Your task to perform on an android device: create a new album in the google photos Image 0: 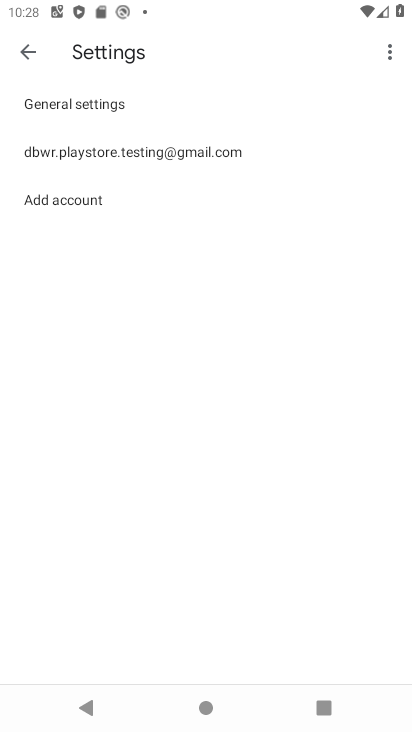
Step 0: press back button
Your task to perform on an android device: create a new album in the google photos Image 1: 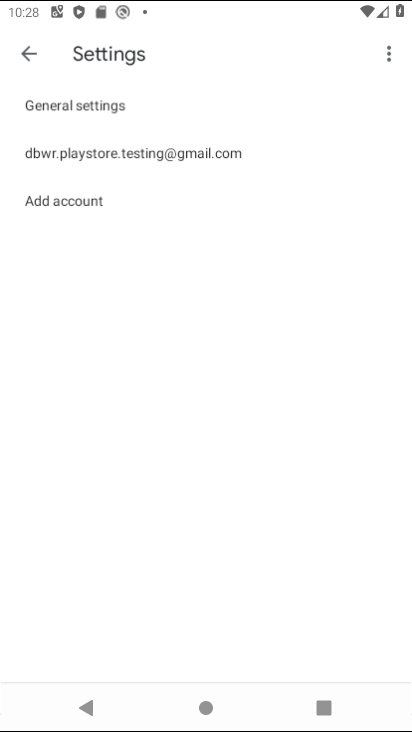
Step 1: press back button
Your task to perform on an android device: create a new album in the google photos Image 2: 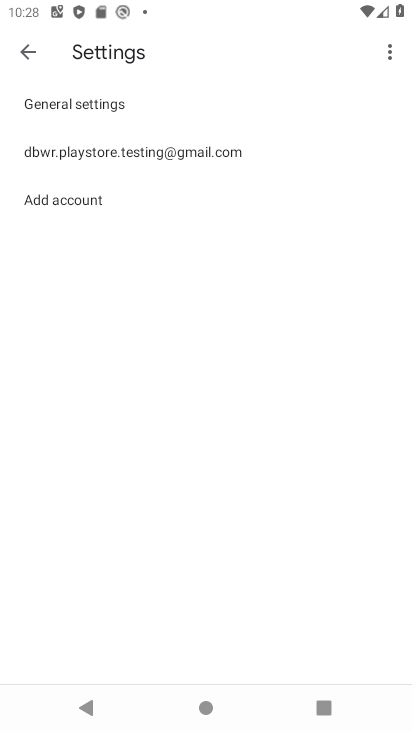
Step 2: press back button
Your task to perform on an android device: create a new album in the google photos Image 3: 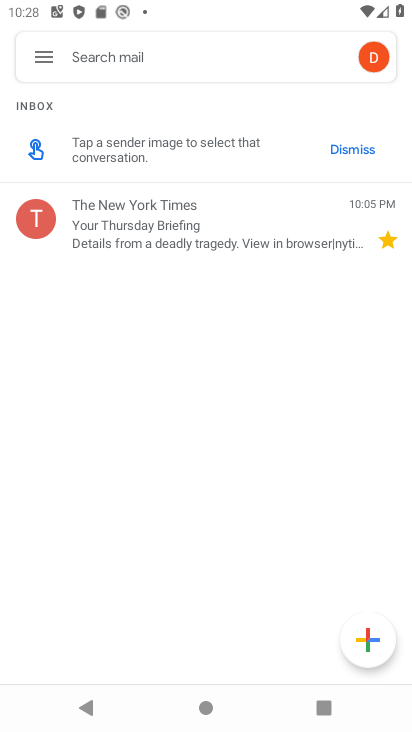
Step 3: press back button
Your task to perform on an android device: create a new album in the google photos Image 4: 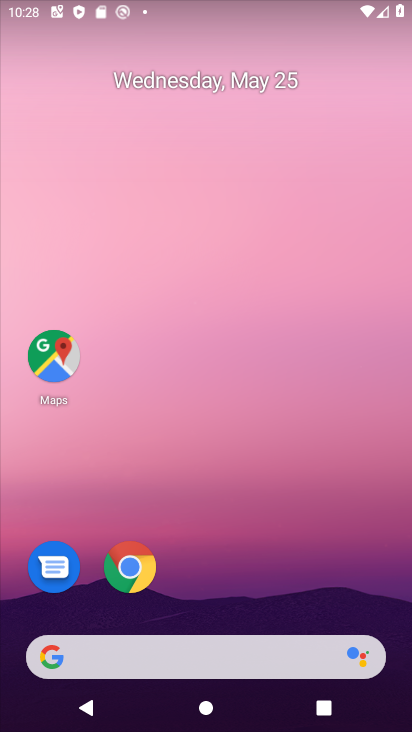
Step 4: drag from (245, 558) to (222, 76)
Your task to perform on an android device: create a new album in the google photos Image 5: 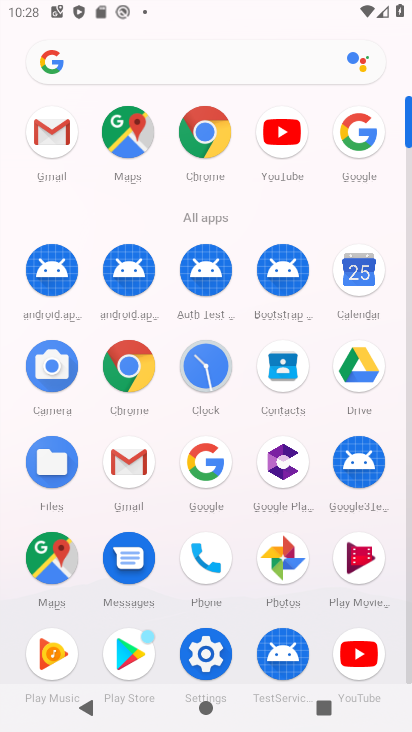
Step 5: click (295, 561)
Your task to perform on an android device: create a new album in the google photos Image 6: 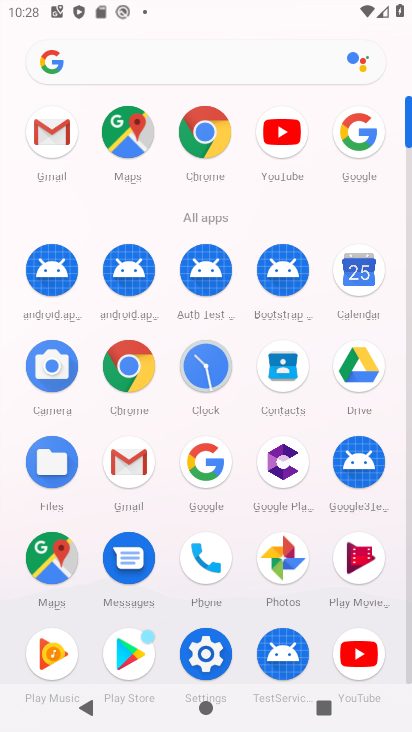
Step 6: click (295, 561)
Your task to perform on an android device: create a new album in the google photos Image 7: 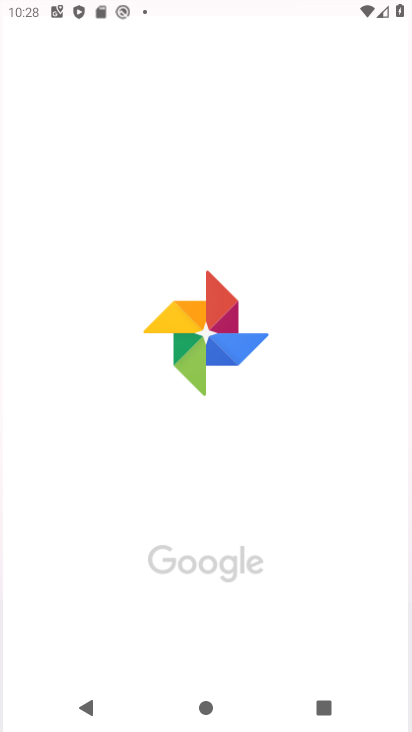
Step 7: click (294, 560)
Your task to perform on an android device: create a new album in the google photos Image 8: 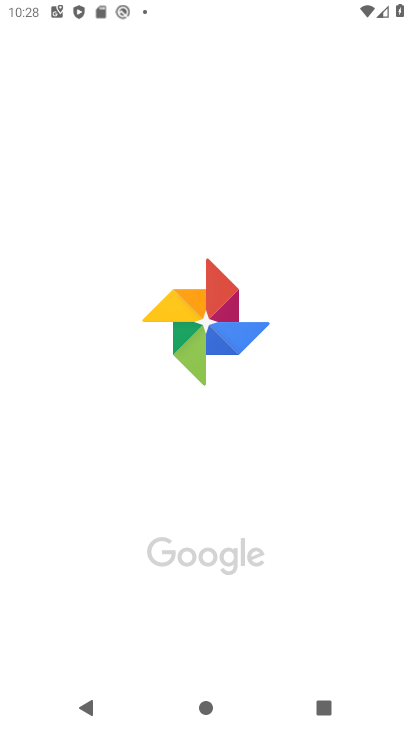
Step 8: click (294, 560)
Your task to perform on an android device: create a new album in the google photos Image 9: 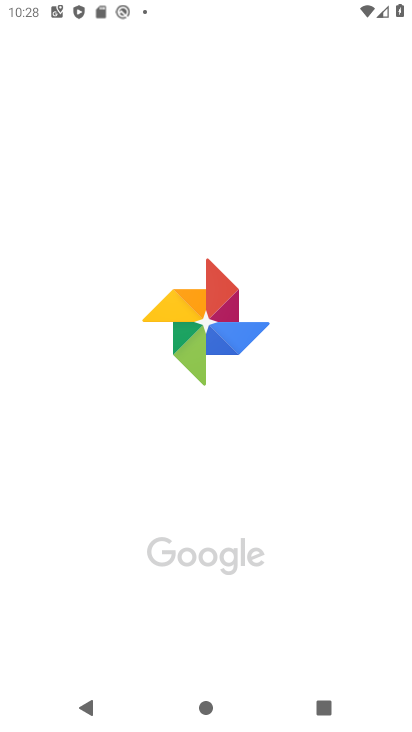
Step 9: click (294, 560)
Your task to perform on an android device: create a new album in the google photos Image 10: 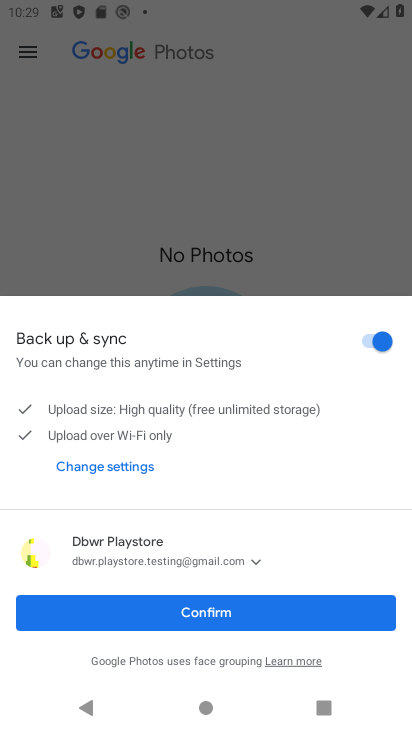
Step 10: click (213, 606)
Your task to perform on an android device: create a new album in the google photos Image 11: 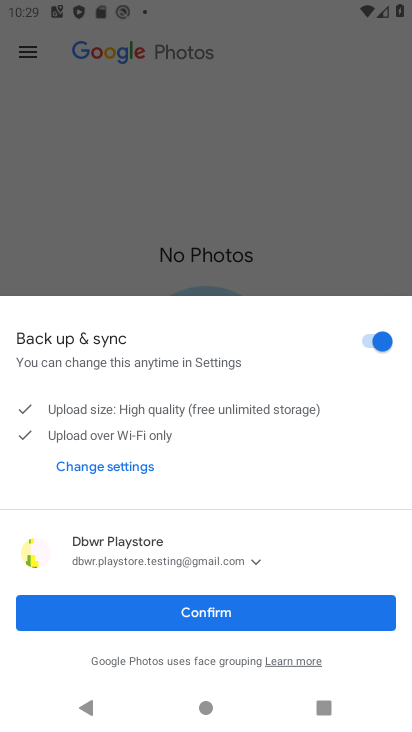
Step 11: click (215, 605)
Your task to perform on an android device: create a new album in the google photos Image 12: 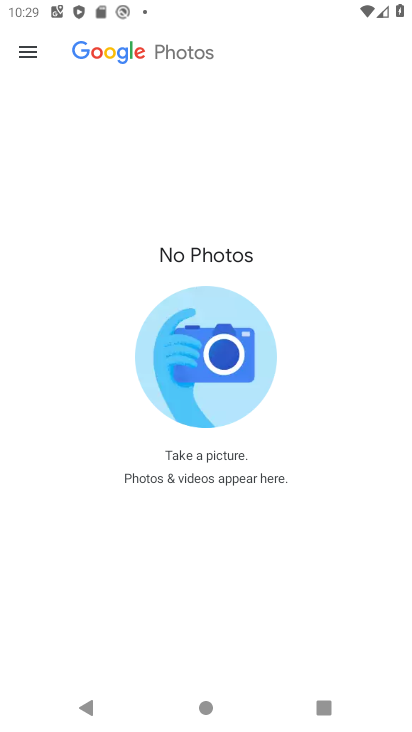
Step 12: click (216, 605)
Your task to perform on an android device: create a new album in the google photos Image 13: 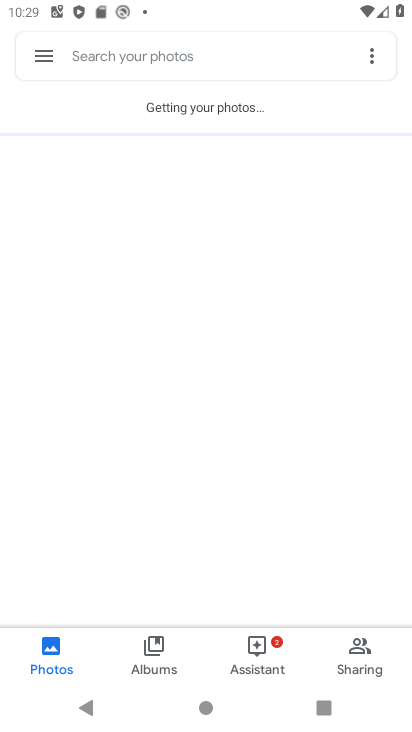
Step 13: drag from (371, 61) to (211, 350)
Your task to perform on an android device: create a new album in the google photos Image 14: 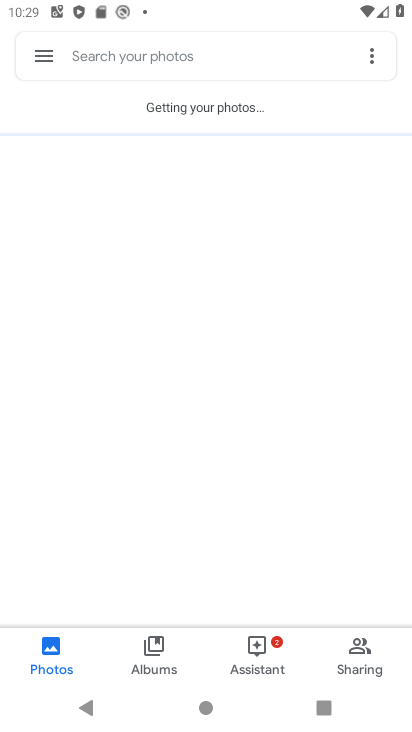
Step 14: click (149, 648)
Your task to perform on an android device: create a new album in the google photos Image 15: 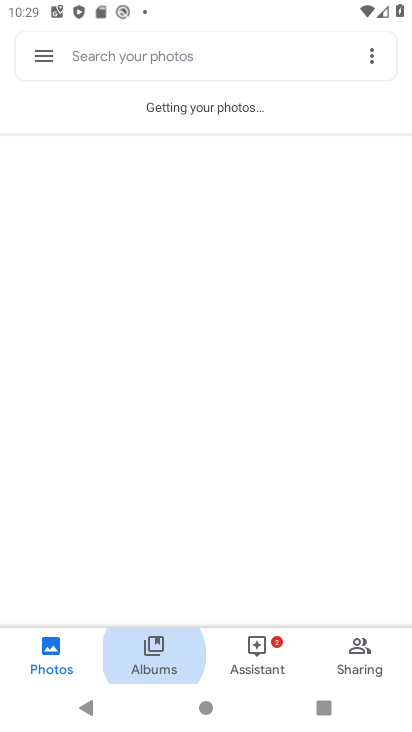
Step 15: click (149, 648)
Your task to perform on an android device: create a new album in the google photos Image 16: 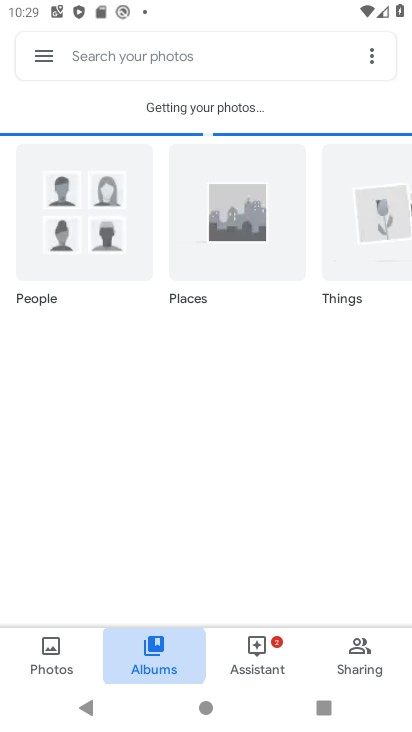
Step 16: click (144, 645)
Your task to perform on an android device: create a new album in the google photos Image 17: 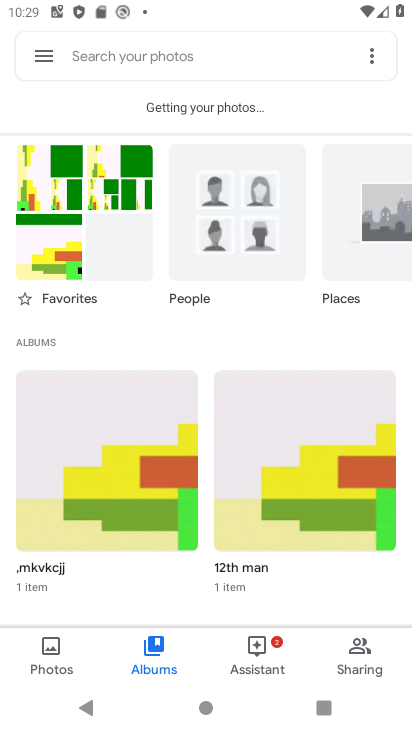
Step 17: drag from (180, 481) to (196, 302)
Your task to perform on an android device: create a new album in the google photos Image 18: 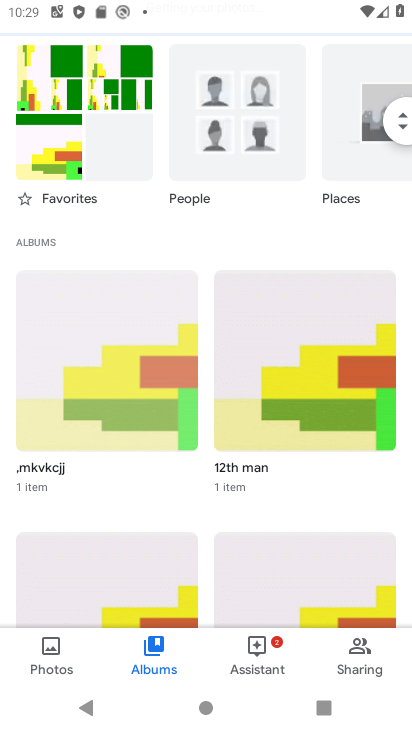
Step 18: drag from (197, 503) to (256, 293)
Your task to perform on an android device: create a new album in the google photos Image 19: 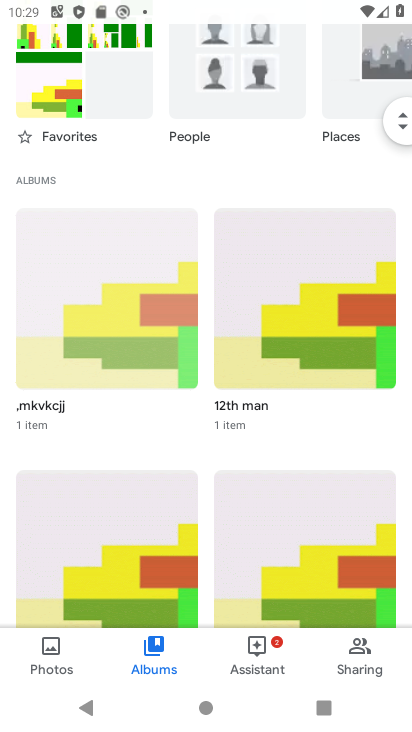
Step 19: drag from (263, 500) to (303, 340)
Your task to perform on an android device: create a new album in the google photos Image 20: 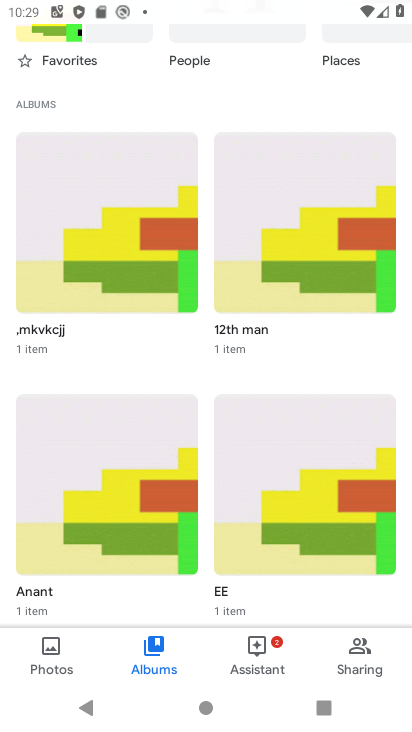
Step 20: drag from (127, 301) to (184, 502)
Your task to perform on an android device: create a new album in the google photos Image 21: 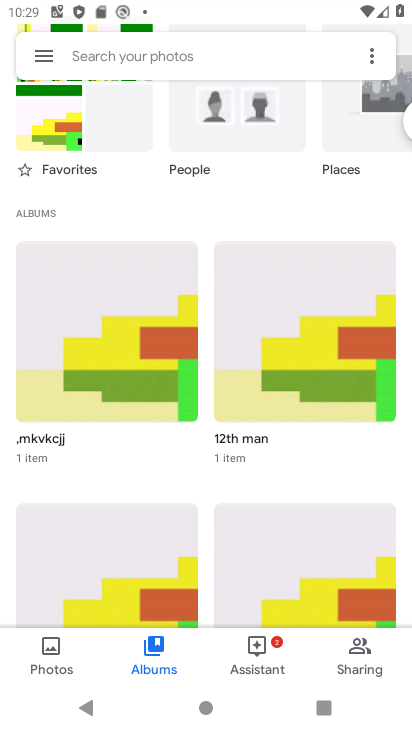
Step 21: drag from (185, 272) to (188, 364)
Your task to perform on an android device: create a new album in the google photos Image 22: 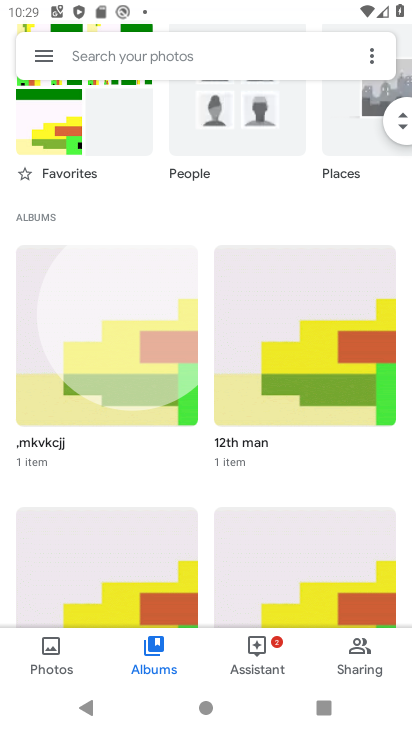
Step 22: drag from (164, 220) to (180, 595)
Your task to perform on an android device: create a new album in the google photos Image 23: 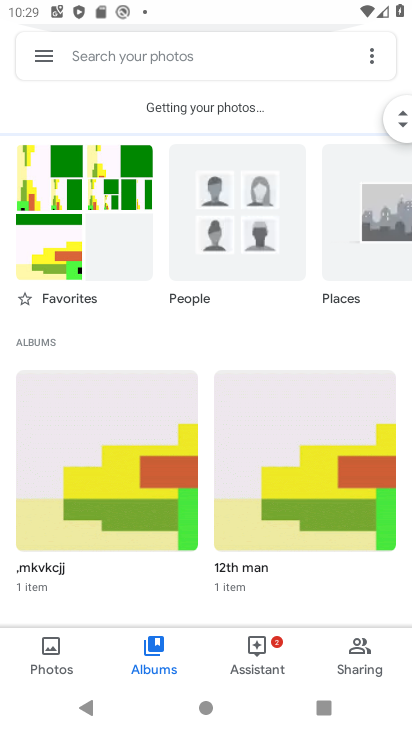
Step 23: drag from (149, 235) to (153, 434)
Your task to perform on an android device: create a new album in the google photos Image 24: 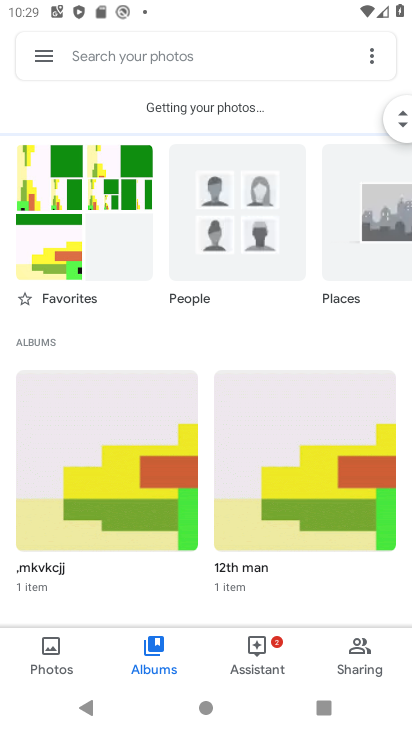
Step 24: drag from (151, 353) to (175, 529)
Your task to perform on an android device: create a new album in the google photos Image 25: 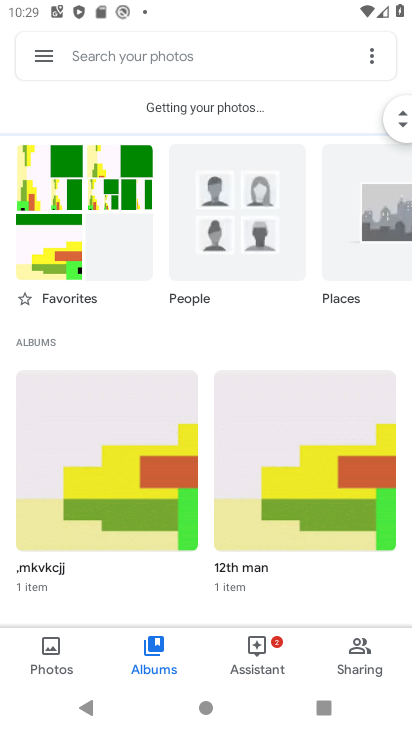
Step 25: click (370, 51)
Your task to perform on an android device: create a new album in the google photos Image 26: 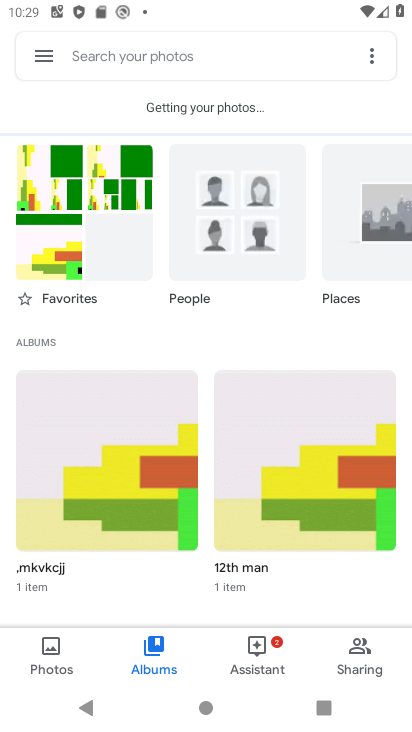
Step 26: drag from (369, 58) to (223, 410)
Your task to perform on an android device: create a new album in the google photos Image 27: 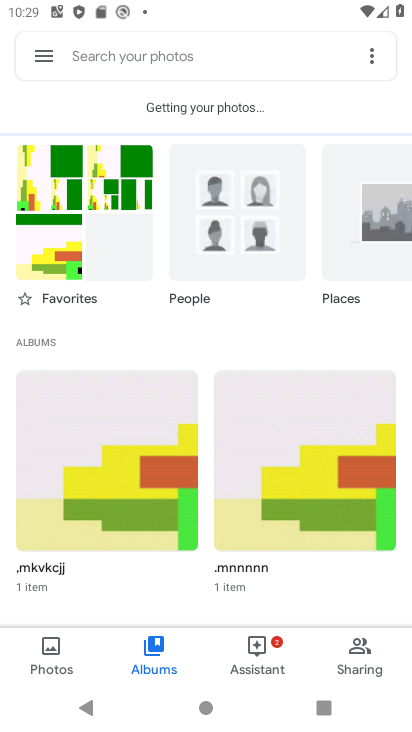
Step 27: click (376, 51)
Your task to perform on an android device: create a new album in the google photos Image 28: 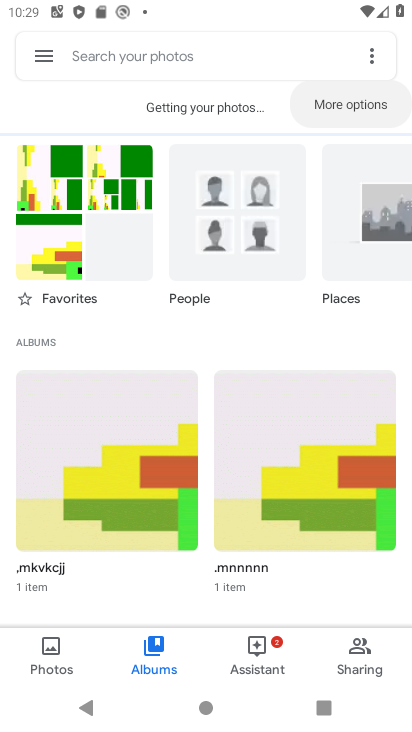
Step 28: click (374, 57)
Your task to perform on an android device: create a new album in the google photos Image 29: 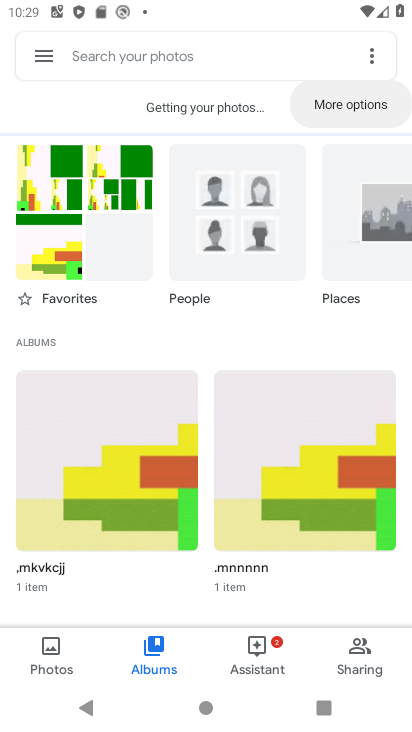
Step 29: click (374, 57)
Your task to perform on an android device: create a new album in the google photos Image 30: 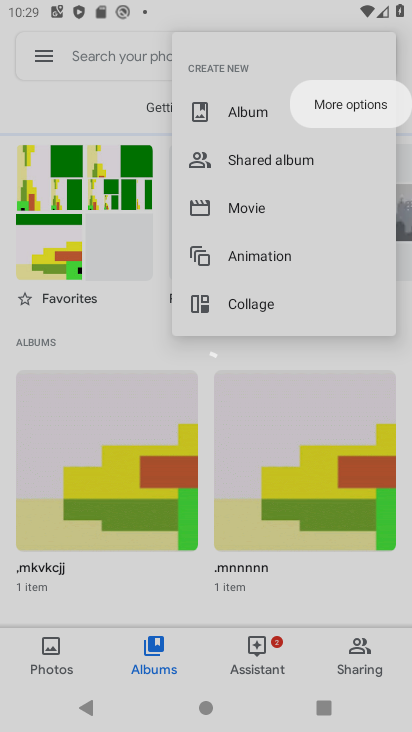
Step 30: click (374, 57)
Your task to perform on an android device: create a new album in the google photos Image 31: 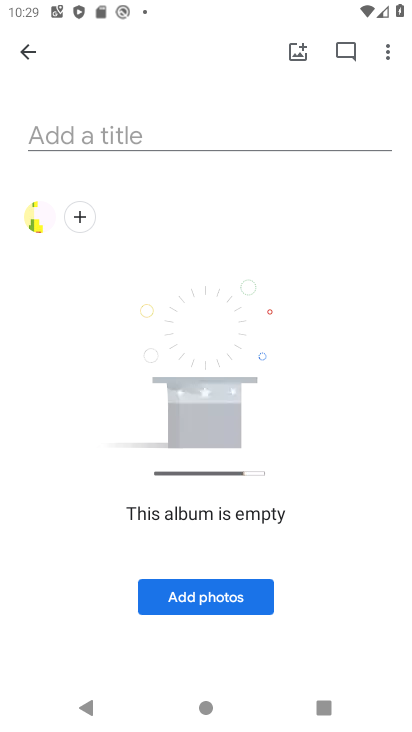
Step 31: click (54, 138)
Your task to perform on an android device: create a new album in the google photos Image 32: 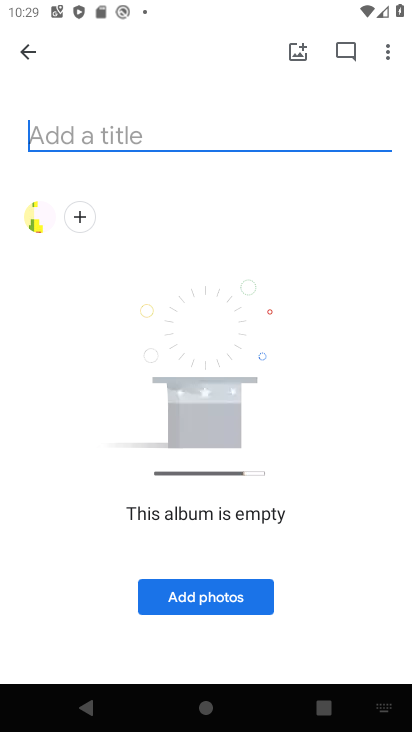
Step 32: click (55, 137)
Your task to perform on an android device: create a new album in the google photos Image 33: 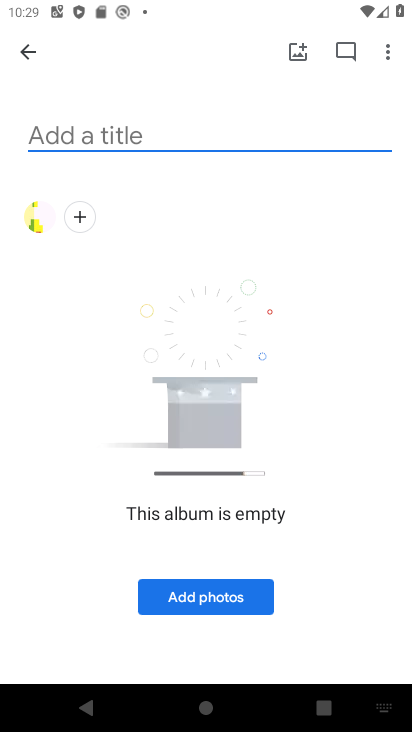
Step 33: click (57, 137)
Your task to perform on an android device: create a new album in the google photos Image 34: 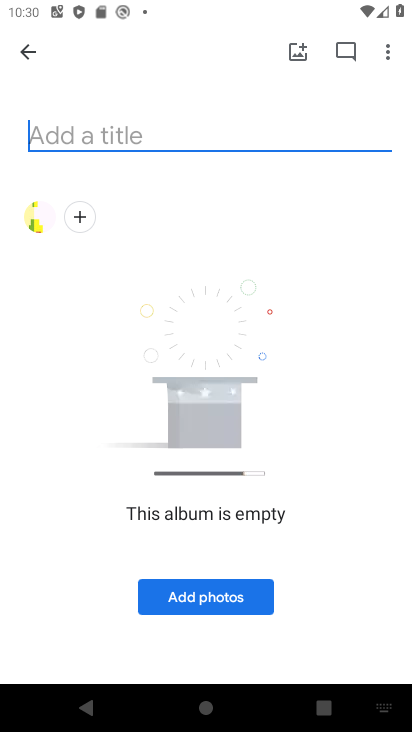
Step 34: type "ayodhya"
Your task to perform on an android device: create a new album in the google photos Image 35: 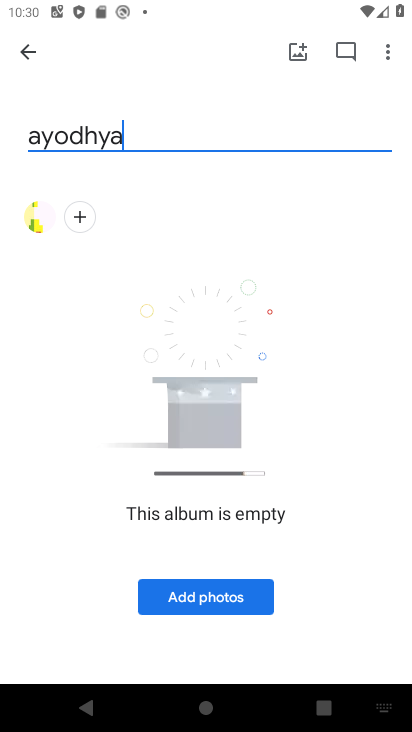
Step 35: click (204, 597)
Your task to perform on an android device: create a new album in the google photos Image 36: 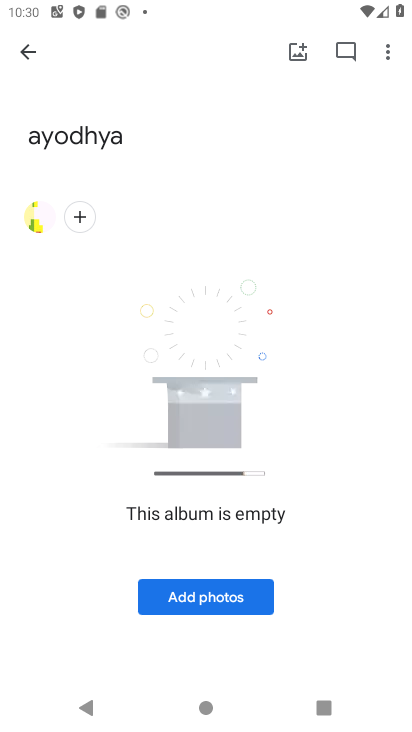
Step 36: click (204, 597)
Your task to perform on an android device: create a new album in the google photos Image 37: 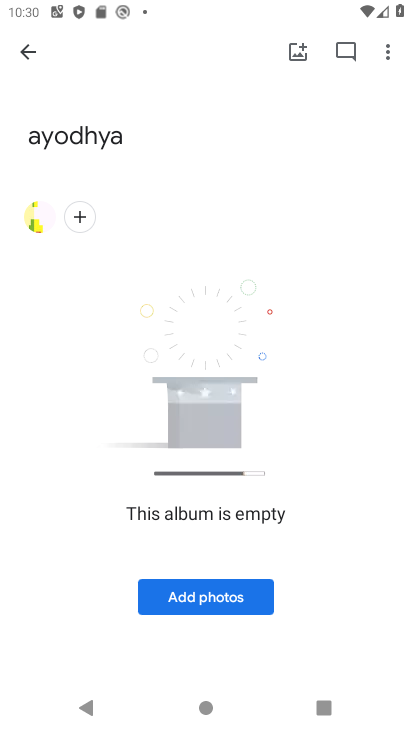
Step 37: click (204, 597)
Your task to perform on an android device: create a new album in the google photos Image 38: 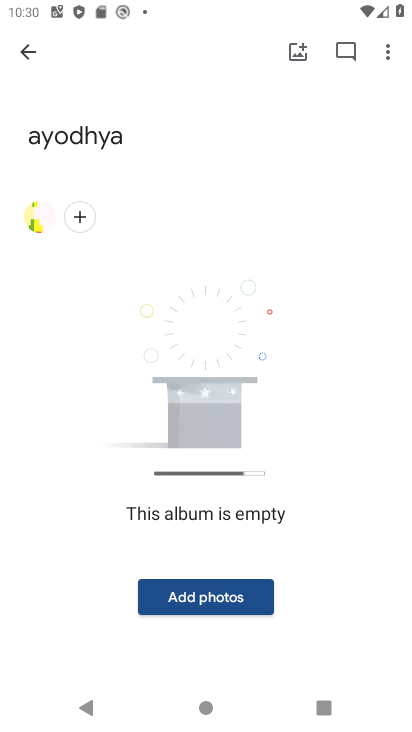
Step 38: click (204, 597)
Your task to perform on an android device: create a new album in the google photos Image 39: 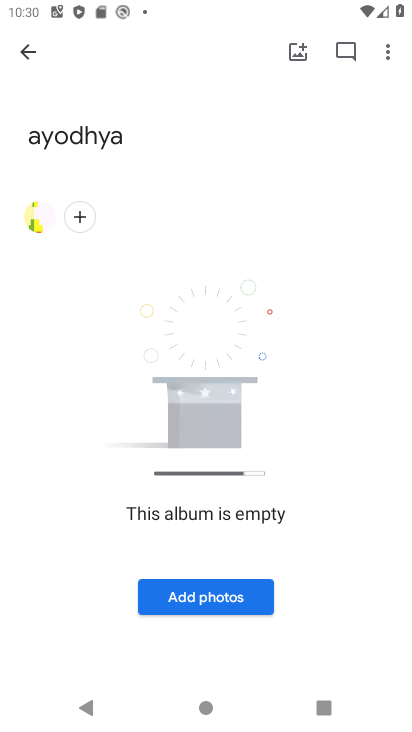
Step 39: click (204, 597)
Your task to perform on an android device: create a new album in the google photos Image 40: 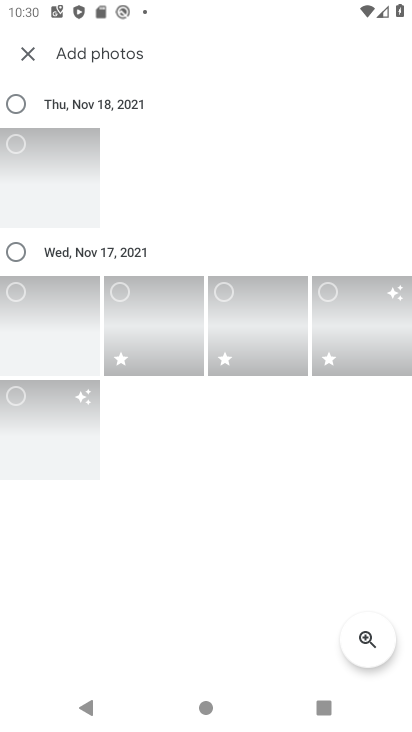
Step 40: click (204, 597)
Your task to perform on an android device: create a new album in the google photos Image 41: 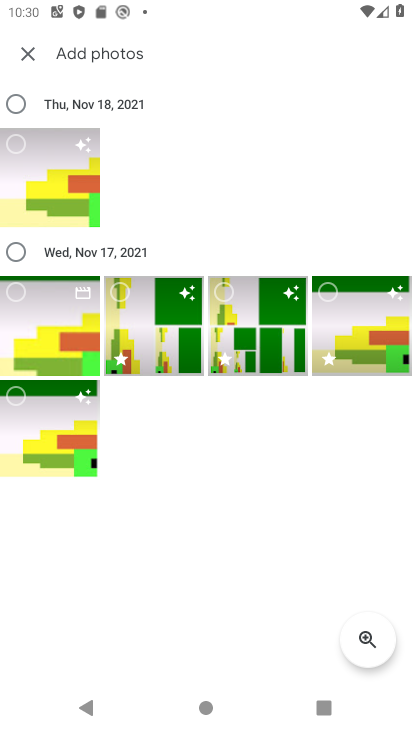
Step 41: click (204, 597)
Your task to perform on an android device: create a new album in the google photos Image 42: 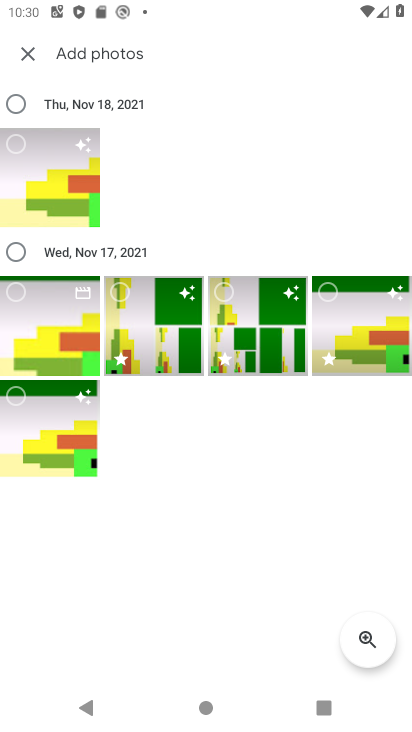
Step 42: click (5, 137)
Your task to perform on an android device: create a new album in the google photos Image 43: 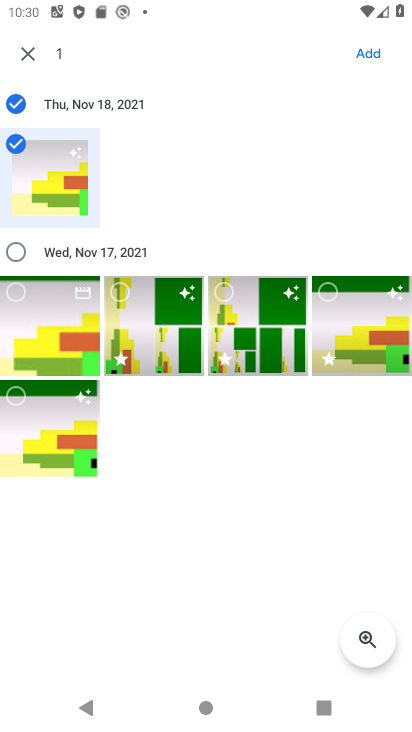
Step 43: click (13, 254)
Your task to perform on an android device: create a new album in the google photos Image 44: 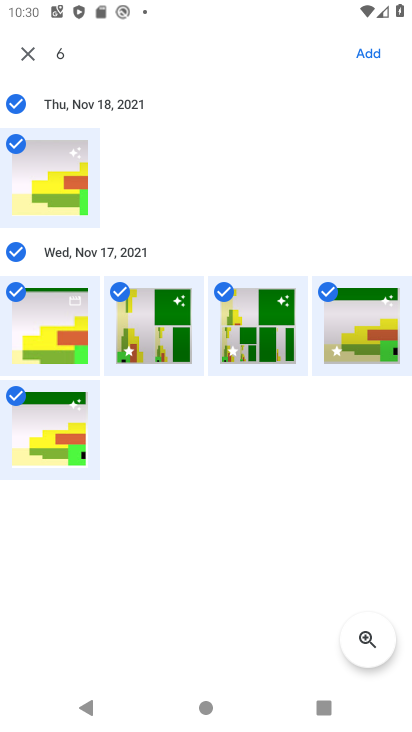
Step 44: click (373, 48)
Your task to perform on an android device: create a new album in the google photos Image 45: 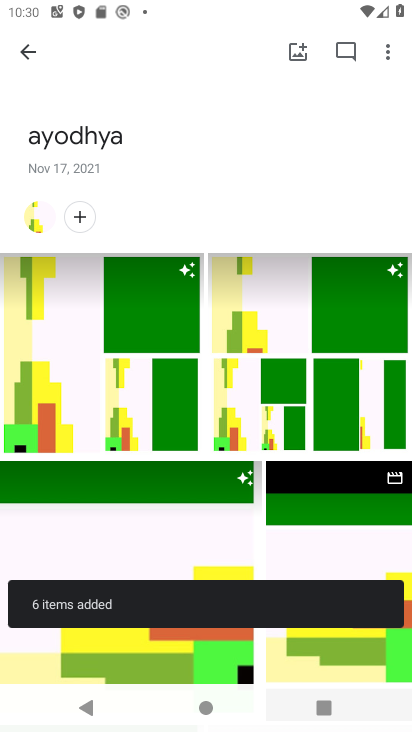
Step 45: task complete